Your task to perform on an android device: Open sound settings Image 0: 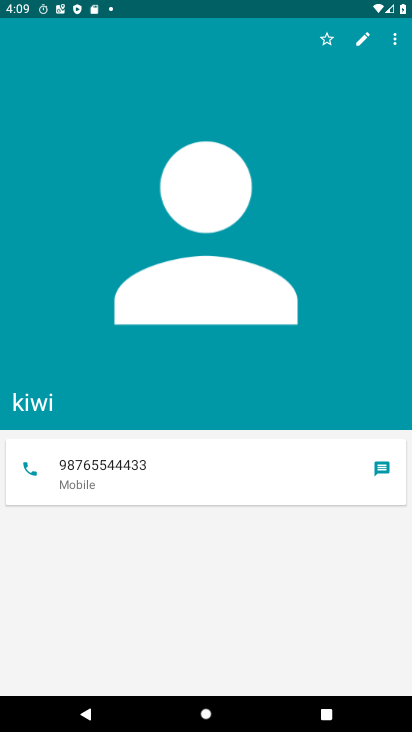
Step 0: press home button
Your task to perform on an android device: Open sound settings Image 1: 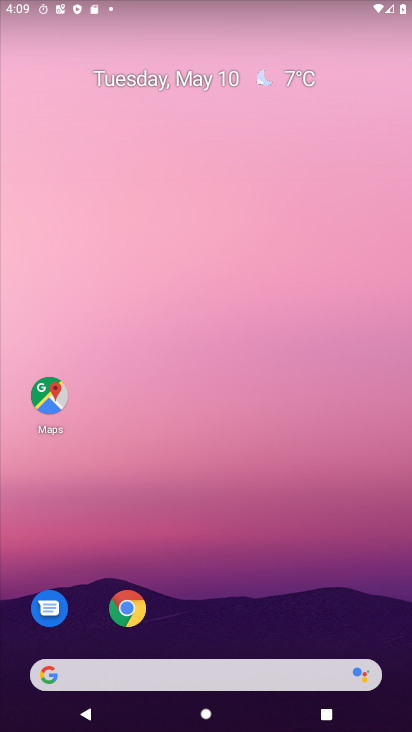
Step 1: drag from (267, 614) to (260, 23)
Your task to perform on an android device: Open sound settings Image 2: 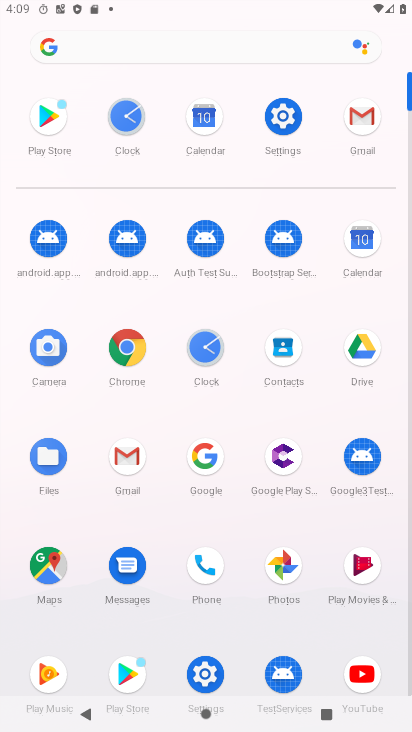
Step 2: click (282, 112)
Your task to perform on an android device: Open sound settings Image 3: 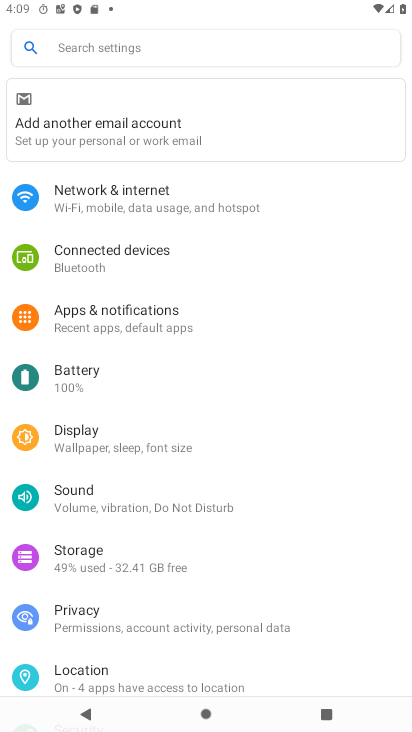
Step 3: click (73, 504)
Your task to perform on an android device: Open sound settings Image 4: 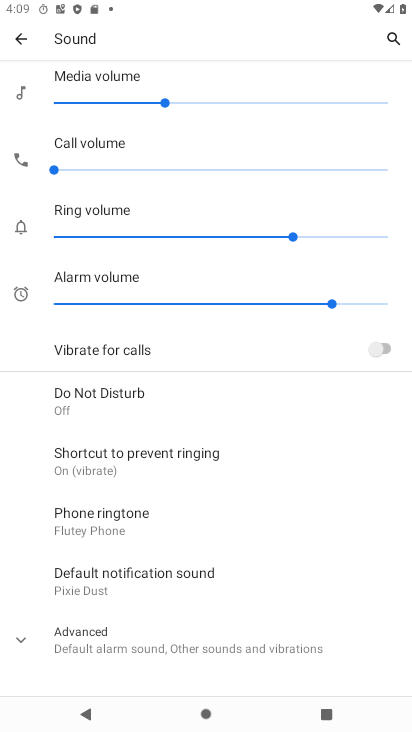
Step 4: task complete